Your task to perform on an android device: open wifi settings Image 0: 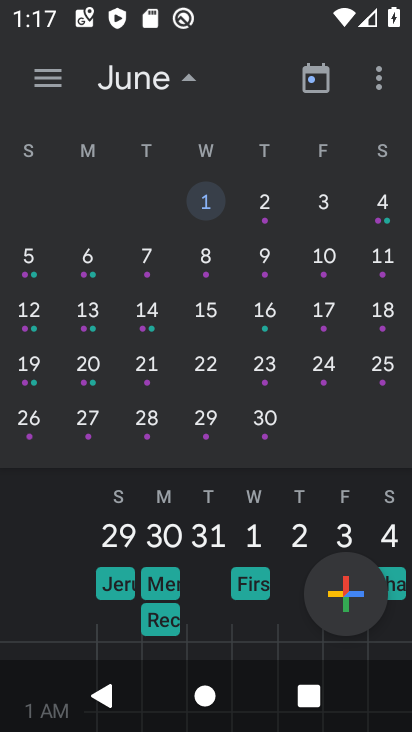
Step 0: drag from (267, 22) to (195, 683)
Your task to perform on an android device: open wifi settings Image 1: 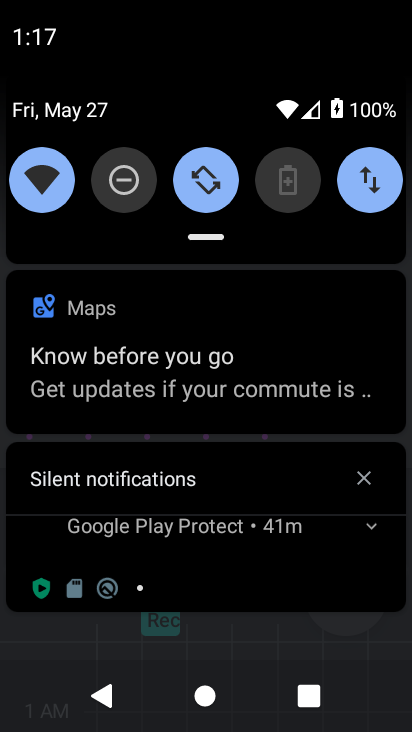
Step 1: click (42, 204)
Your task to perform on an android device: open wifi settings Image 2: 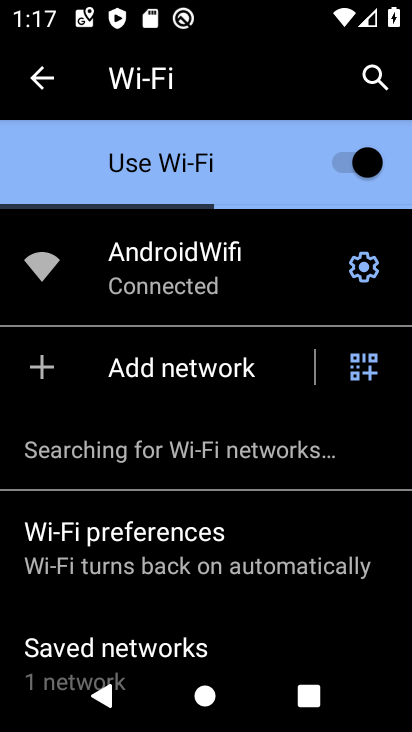
Step 2: task complete